Your task to perform on an android device: set an alarm Image 0: 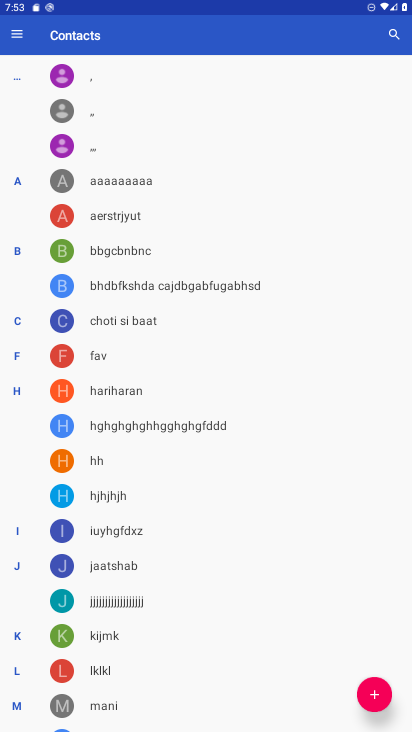
Step 0: press home button
Your task to perform on an android device: set an alarm Image 1: 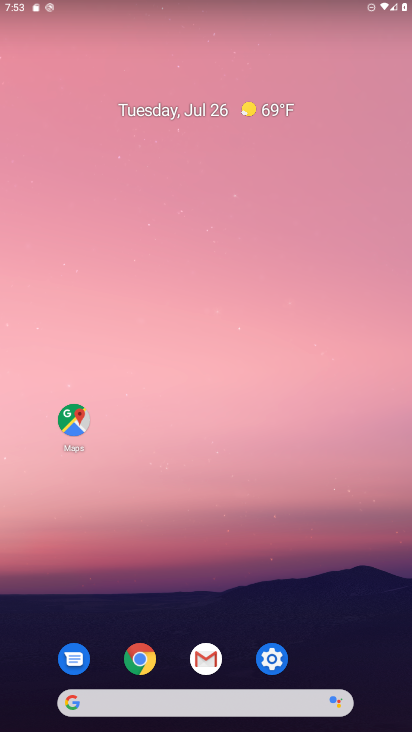
Step 1: drag from (284, 718) to (336, 46)
Your task to perform on an android device: set an alarm Image 2: 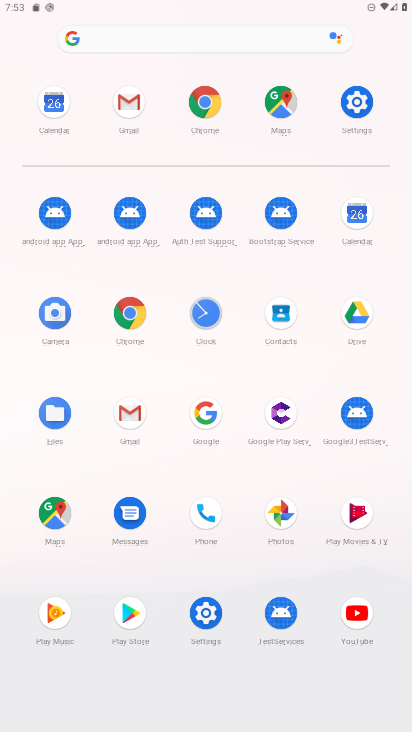
Step 2: click (214, 307)
Your task to perform on an android device: set an alarm Image 3: 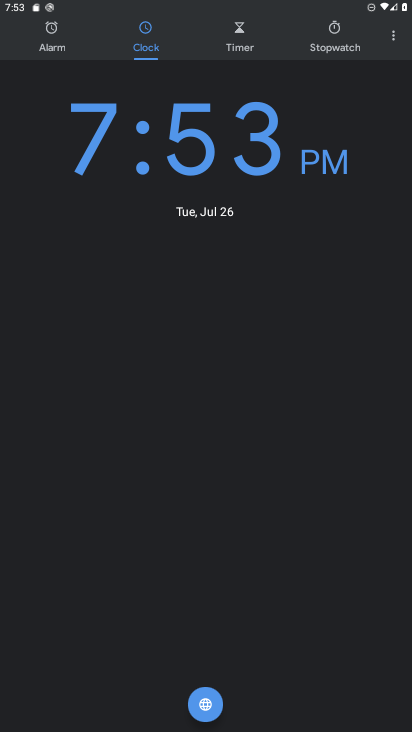
Step 3: click (52, 41)
Your task to perform on an android device: set an alarm Image 4: 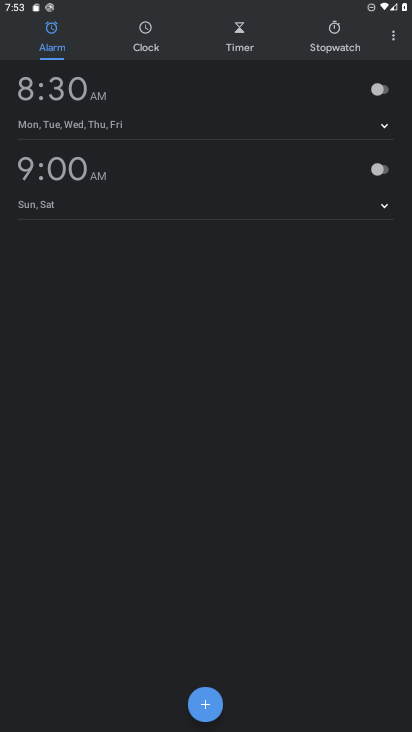
Step 4: click (372, 100)
Your task to perform on an android device: set an alarm Image 5: 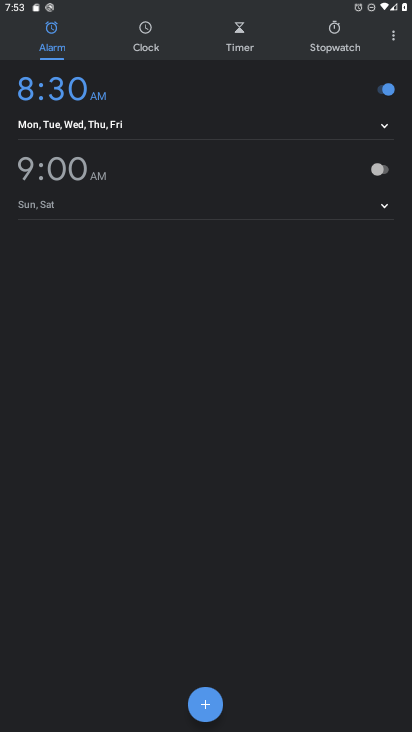
Step 5: task complete